Your task to perform on an android device: turn on showing notifications on the lock screen Image 0: 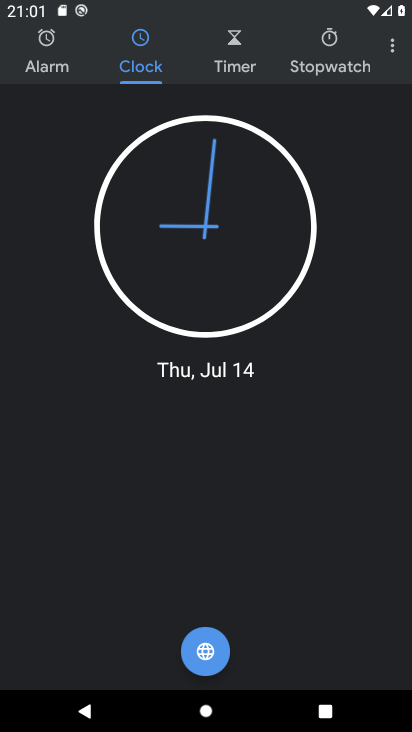
Step 0: press home button
Your task to perform on an android device: turn on showing notifications on the lock screen Image 1: 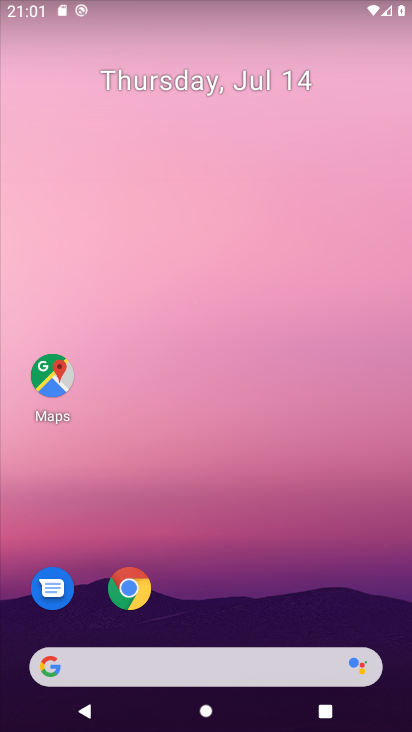
Step 1: drag from (365, 608) to (386, 41)
Your task to perform on an android device: turn on showing notifications on the lock screen Image 2: 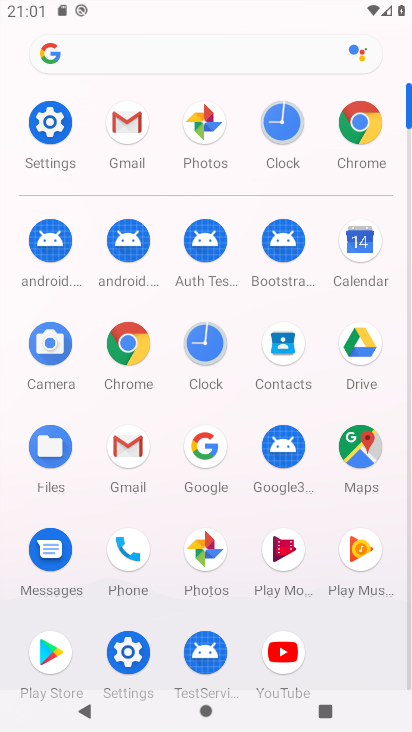
Step 2: click (136, 646)
Your task to perform on an android device: turn on showing notifications on the lock screen Image 3: 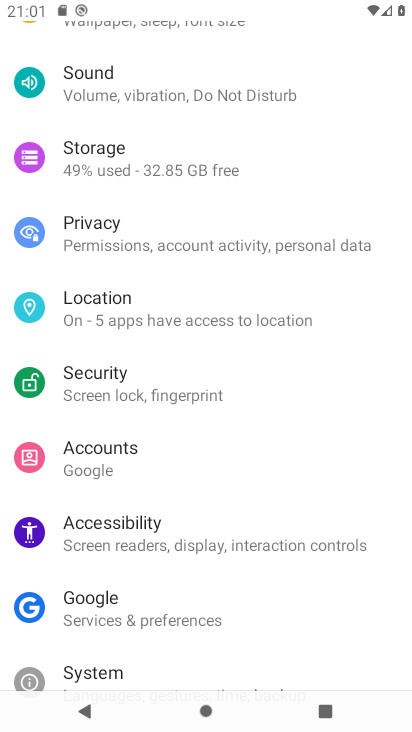
Step 3: drag from (355, 471) to (369, 533)
Your task to perform on an android device: turn on showing notifications on the lock screen Image 4: 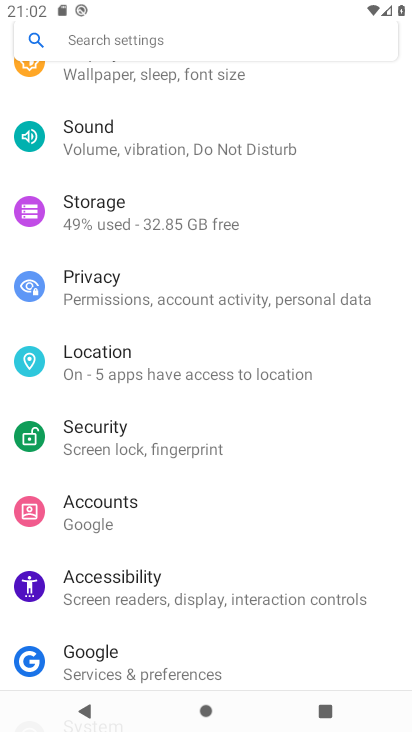
Step 4: drag from (363, 464) to (372, 567)
Your task to perform on an android device: turn on showing notifications on the lock screen Image 5: 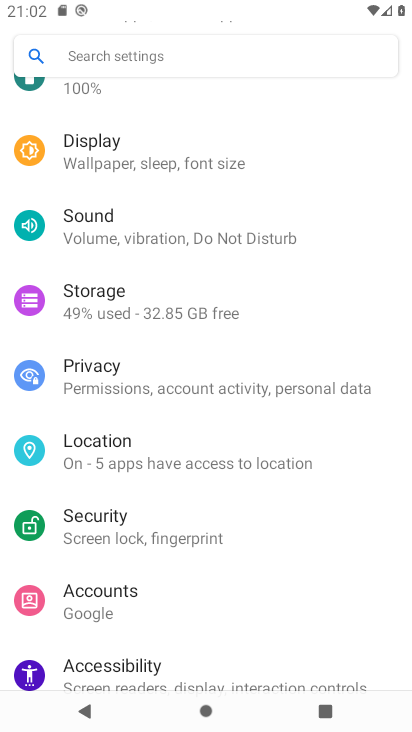
Step 5: drag from (361, 481) to (367, 539)
Your task to perform on an android device: turn on showing notifications on the lock screen Image 6: 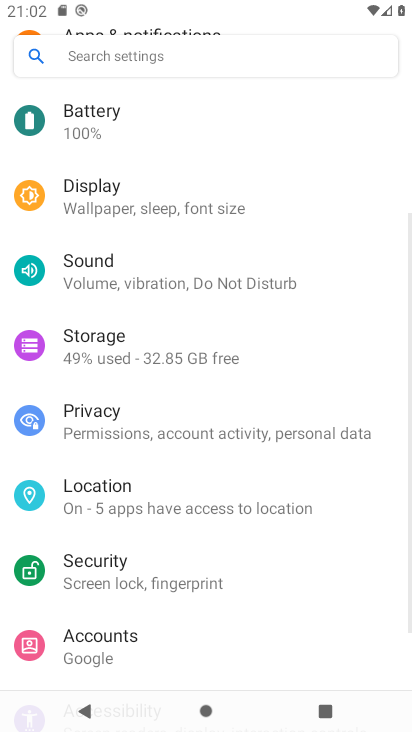
Step 6: drag from (363, 471) to (363, 526)
Your task to perform on an android device: turn on showing notifications on the lock screen Image 7: 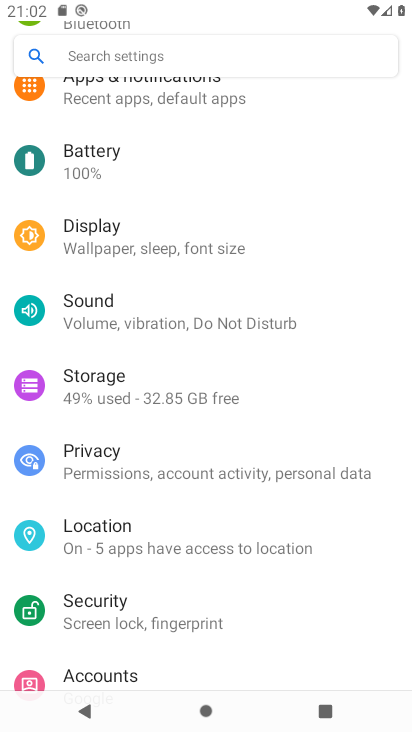
Step 7: drag from (371, 439) to (372, 507)
Your task to perform on an android device: turn on showing notifications on the lock screen Image 8: 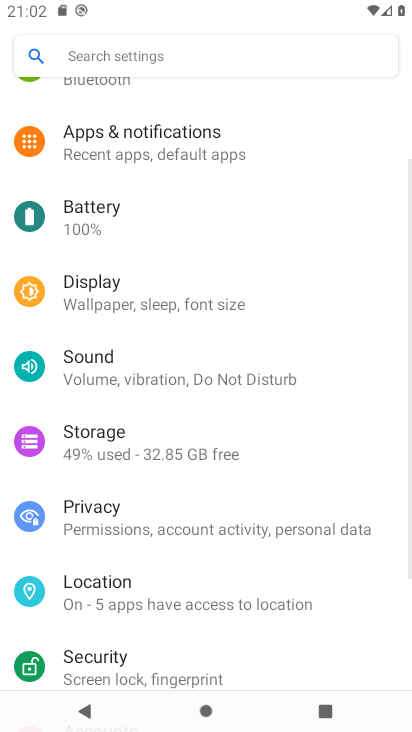
Step 8: drag from (371, 436) to (373, 514)
Your task to perform on an android device: turn on showing notifications on the lock screen Image 9: 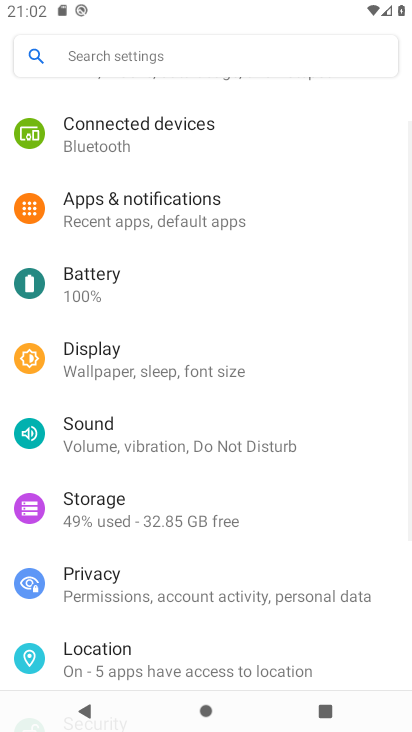
Step 9: drag from (370, 438) to (371, 502)
Your task to perform on an android device: turn on showing notifications on the lock screen Image 10: 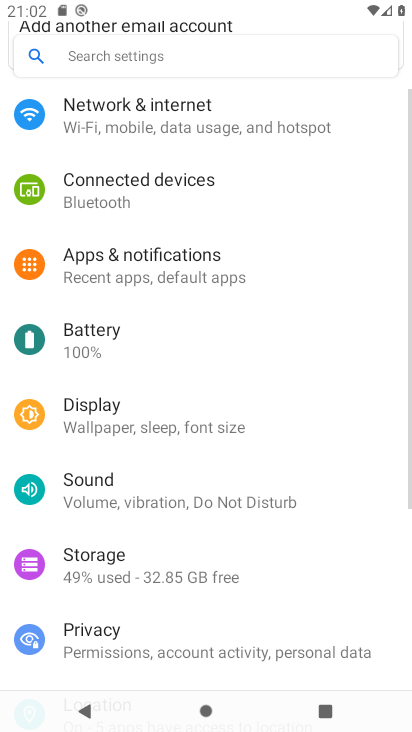
Step 10: drag from (355, 410) to (358, 494)
Your task to perform on an android device: turn on showing notifications on the lock screen Image 11: 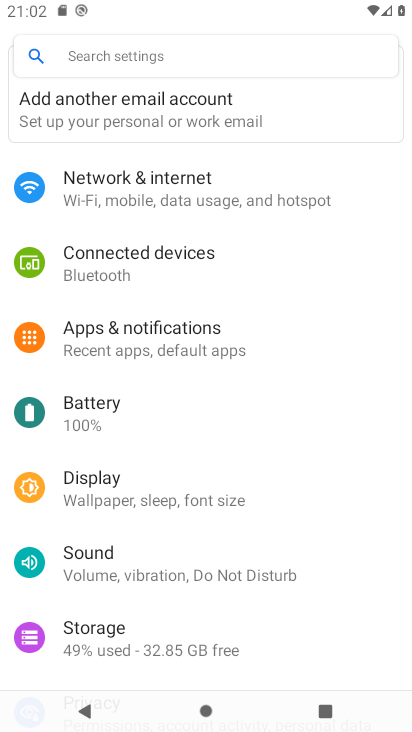
Step 11: drag from (348, 430) to (360, 503)
Your task to perform on an android device: turn on showing notifications on the lock screen Image 12: 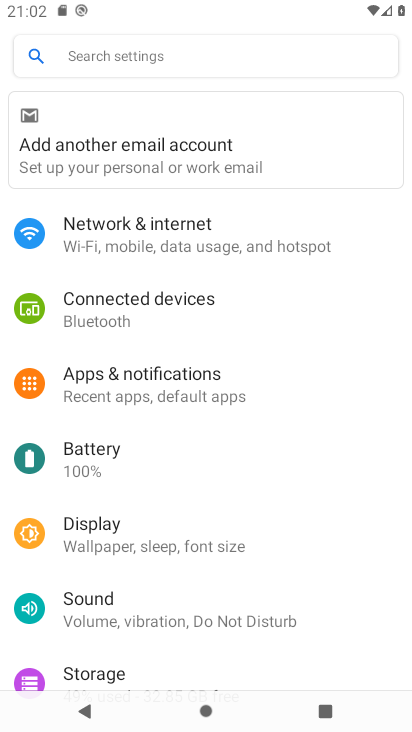
Step 12: drag from (346, 435) to (349, 531)
Your task to perform on an android device: turn on showing notifications on the lock screen Image 13: 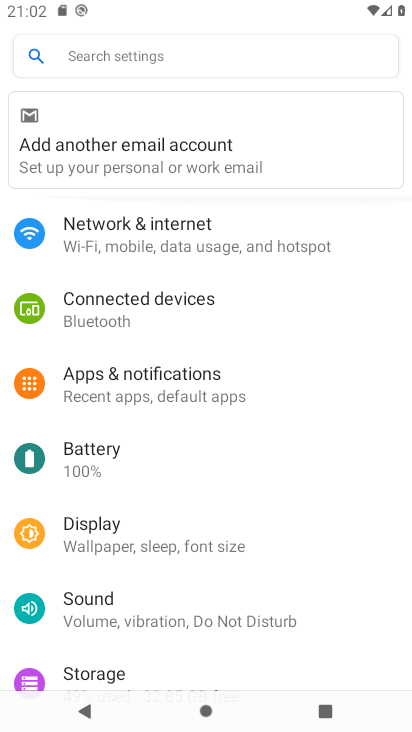
Step 13: click (258, 399)
Your task to perform on an android device: turn on showing notifications on the lock screen Image 14: 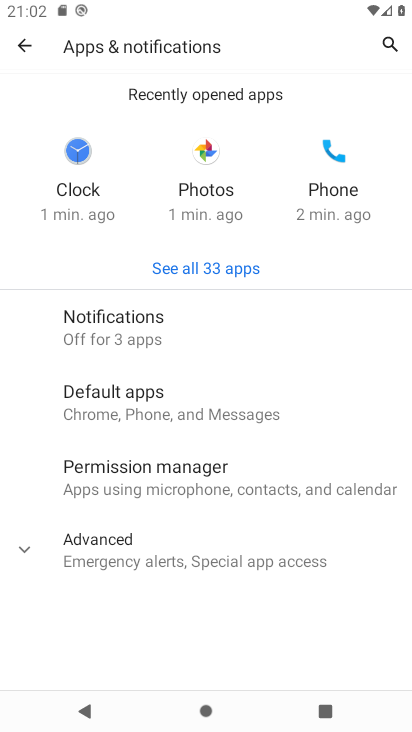
Step 14: click (222, 328)
Your task to perform on an android device: turn on showing notifications on the lock screen Image 15: 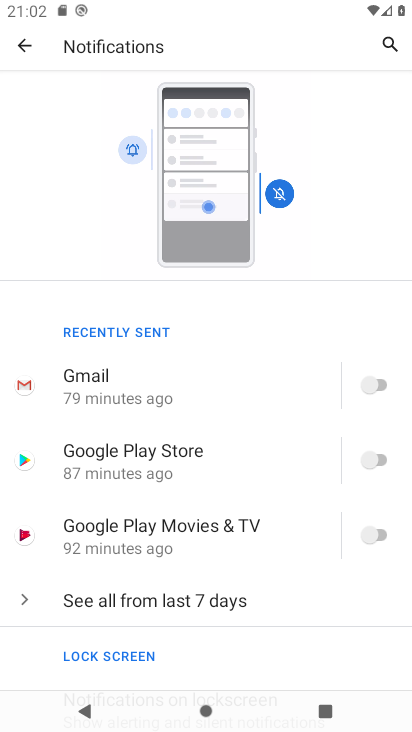
Step 15: drag from (312, 547) to (323, 481)
Your task to perform on an android device: turn on showing notifications on the lock screen Image 16: 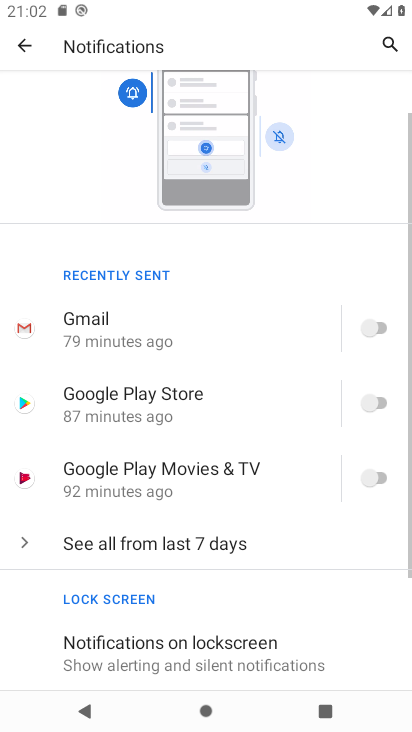
Step 16: drag from (315, 553) to (318, 477)
Your task to perform on an android device: turn on showing notifications on the lock screen Image 17: 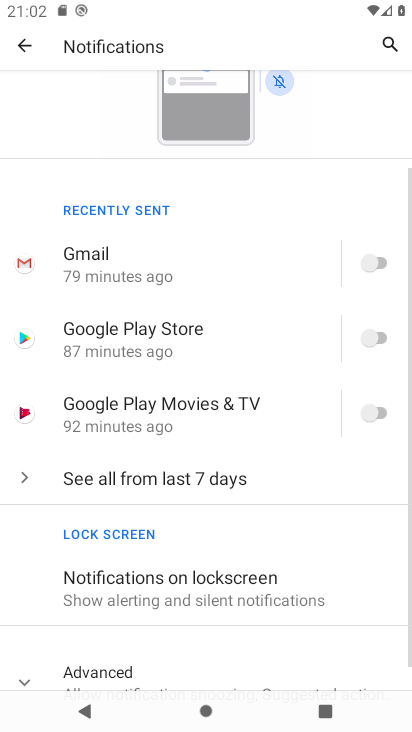
Step 17: drag from (313, 525) to (316, 434)
Your task to perform on an android device: turn on showing notifications on the lock screen Image 18: 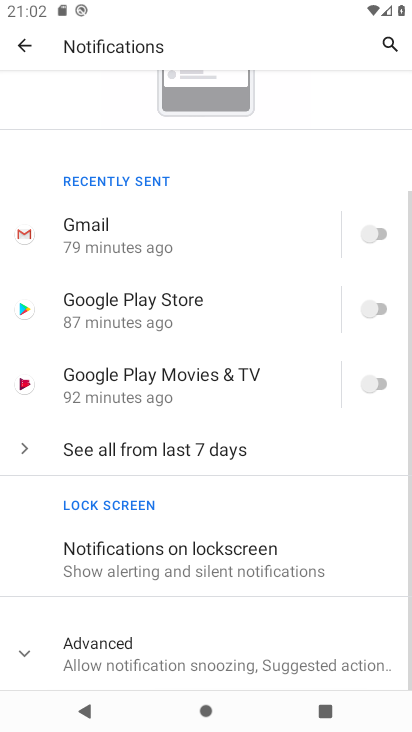
Step 18: click (308, 546)
Your task to perform on an android device: turn on showing notifications on the lock screen Image 19: 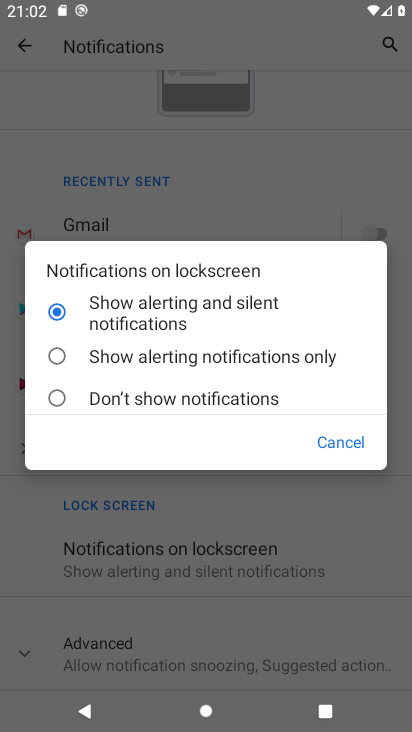
Step 19: task complete